Your task to perform on an android device: Open my contact list Image 0: 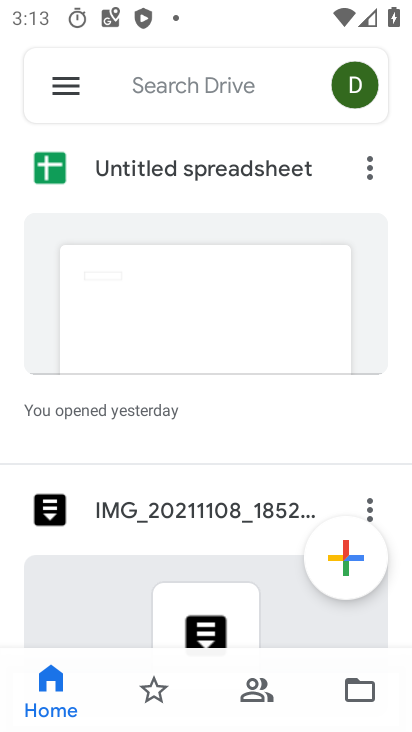
Step 0: press home button
Your task to perform on an android device: Open my contact list Image 1: 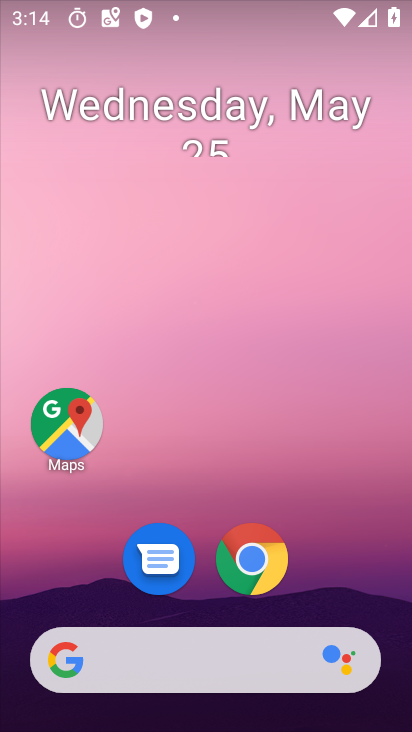
Step 1: drag from (212, 600) to (196, 163)
Your task to perform on an android device: Open my contact list Image 2: 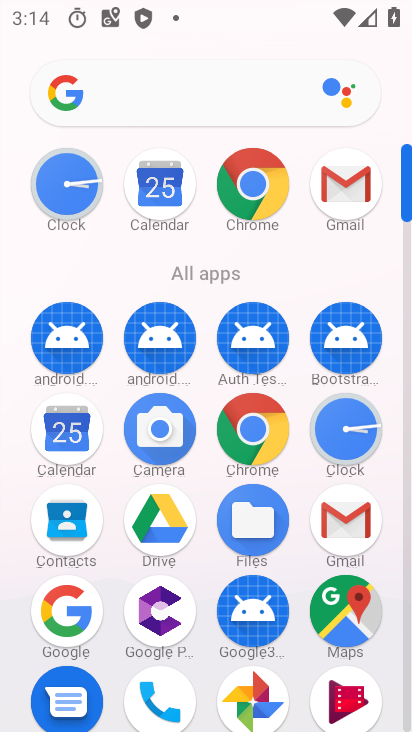
Step 2: click (66, 517)
Your task to perform on an android device: Open my contact list Image 3: 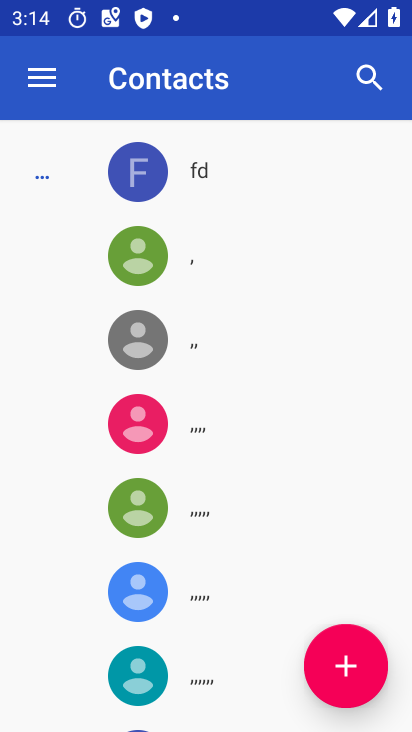
Step 3: task complete